Your task to perform on an android device: check out phone information Image 0: 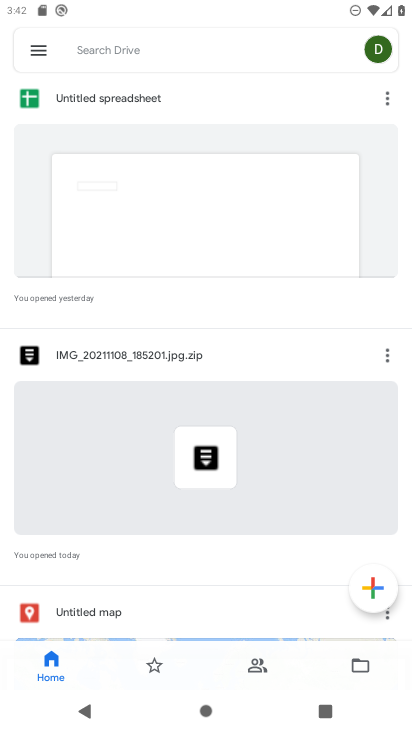
Step 0: press home button
Your task to perform on an android device: check out phone information Image 1: 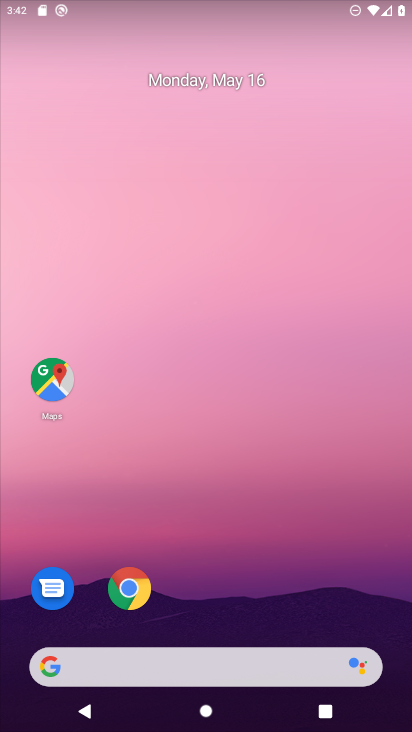
Step 1: drag from (272, 574) to (300, 1)
Your task to perform on an android device: check out phone information Image 2: 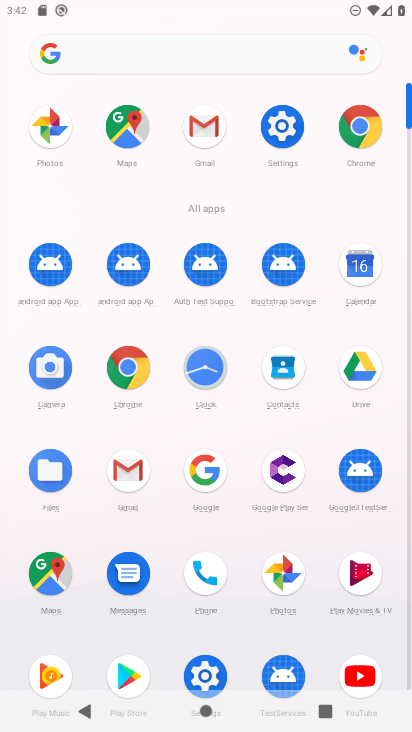
Step 2: click (288, 136)
Your task to perform on an android device: check out phone information Image 3: 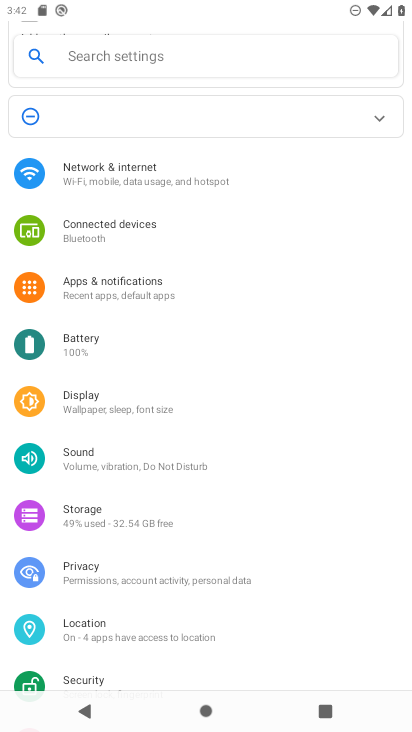
Step 3: drag from (214, 614) to (216, 99)
Your task to perform on an android device: check out phone information Image 4: 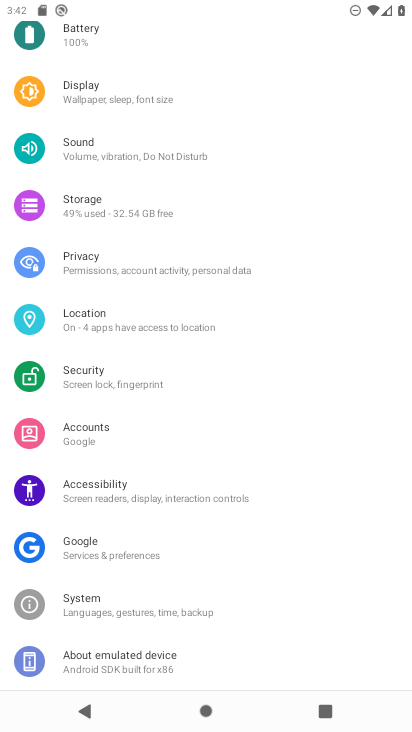
Step 4: click (105, 652)
Your task to perform on an android device: check out phone information Image 5: 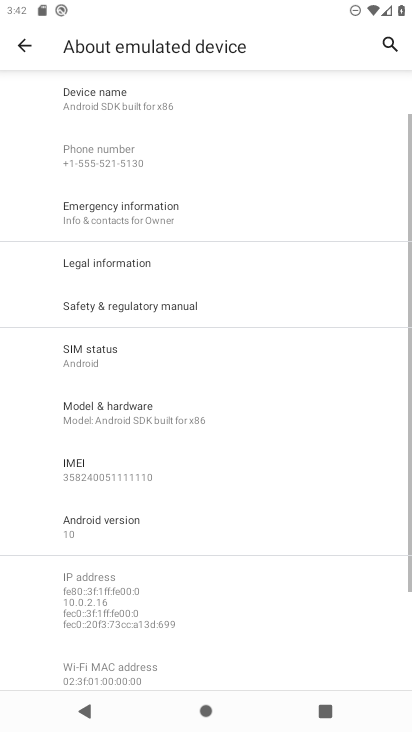
Step 5: task complete